Your task to perform on an android device: Do I have any events this weekend? Image 0: 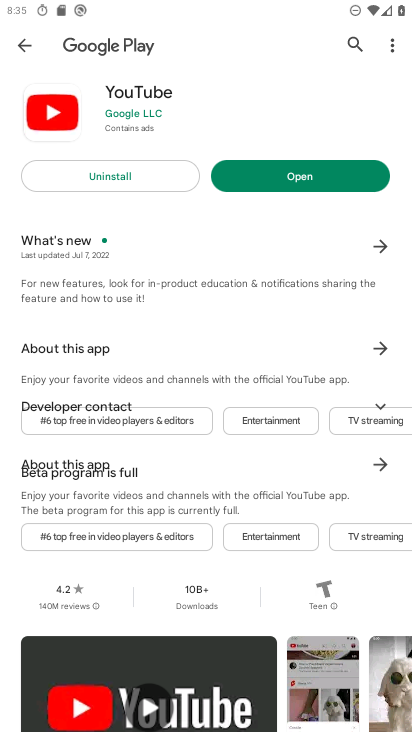
Step 0: press home button
Your task to perform on an android device: Do I have any events this weekend? Image 1: 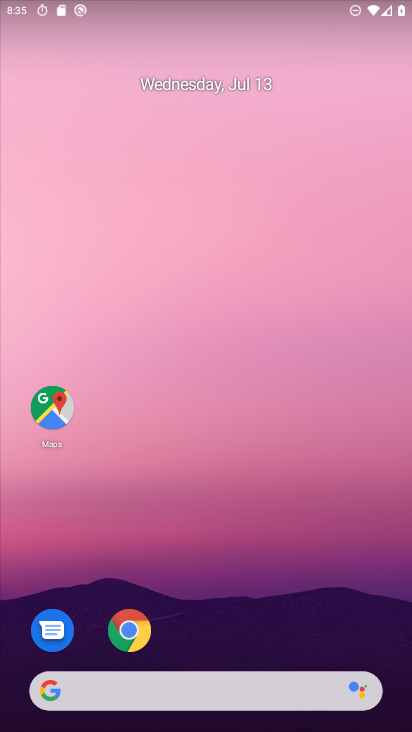
Step 1: drag from (395, 687) to (268, 16)
Your task to perform on an android device: Do I have any events this weekend? Image 2: 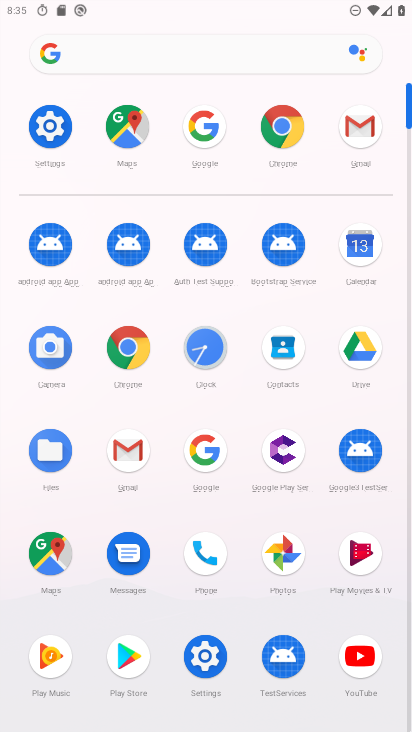
Step 2: click (357, 248)
Your task to perform on an android device: Do I have any events this weekend? Image 3: 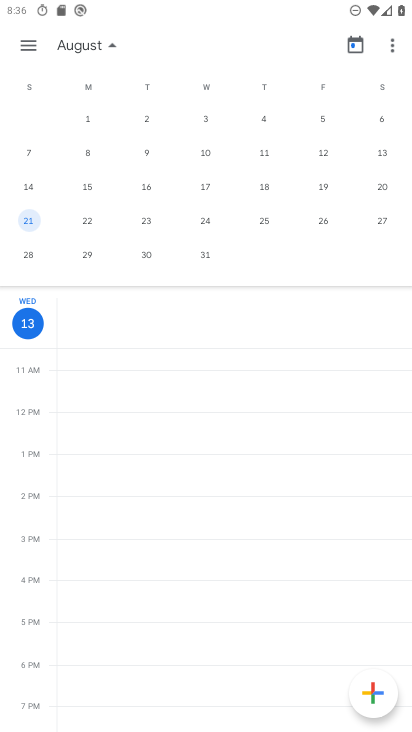
Step 3: task complete